Your task to perform on an android device: Go to sound settings Image 0: 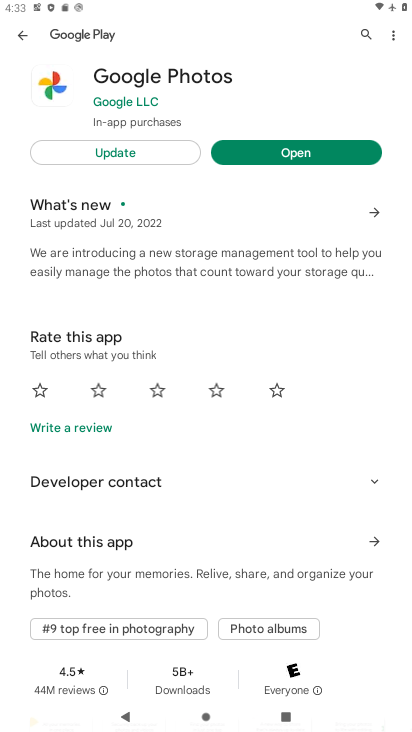
Step 0: press back button
Your task to perform on an android device: Go to sound settings Image 1: 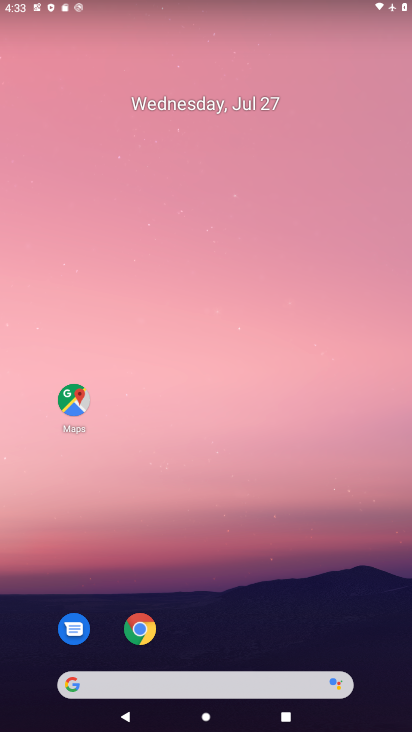
Step 1: drag from (224, 659) to (217, 3)
Your task to perform on an android device: Go to sound settings Image 2: 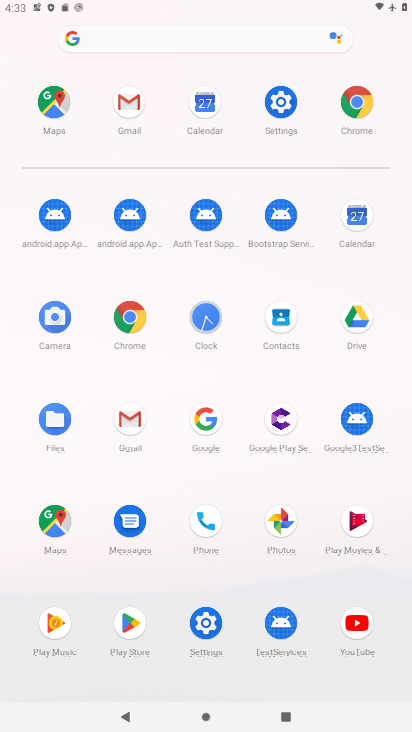
Step 2: click (261, 104)
Your task to perform on an android device: Go to sound settings Image 3: 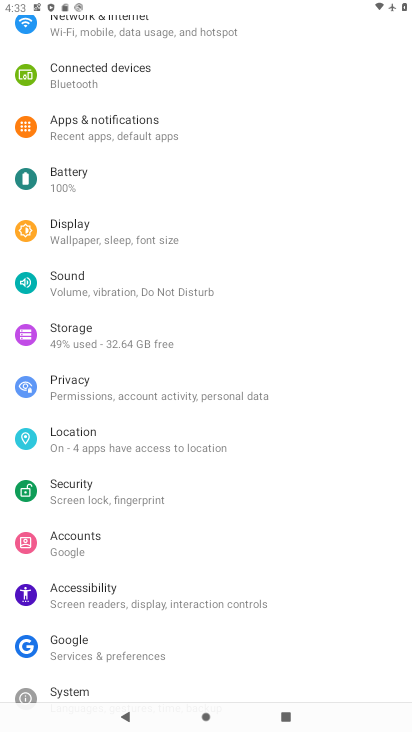
Step 3: click (79, 284)
Your task to perform on an android device: Go to sound settings Image 4: 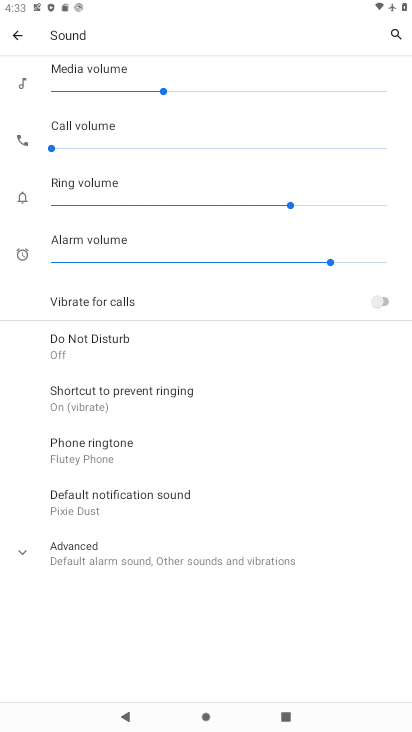
Step 4: task complete